Your task to perform on an android device: Google the capital of Colombia Image 0: 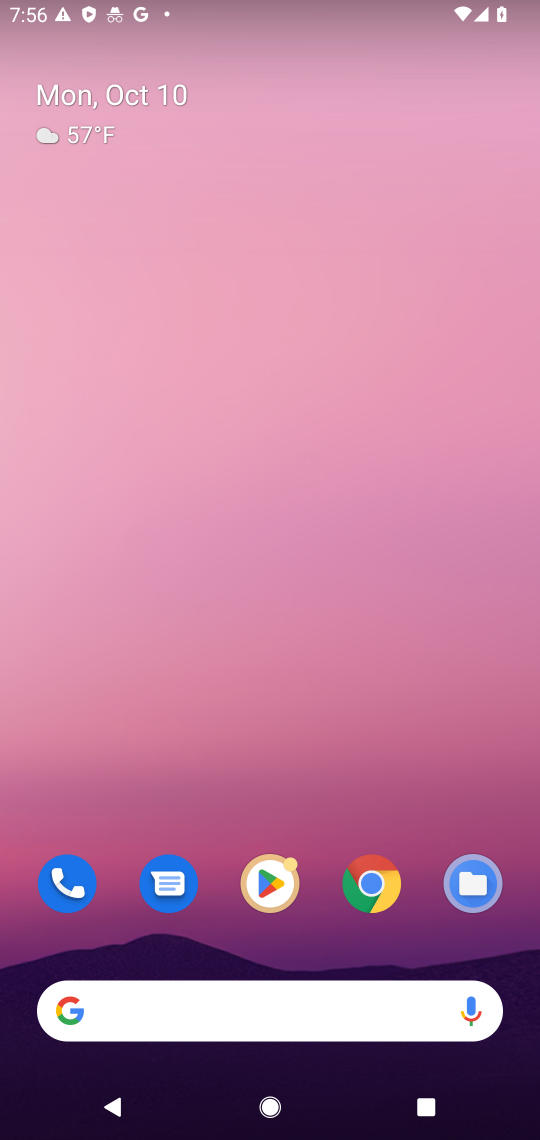
Step 0: drag from (278, 975) to (362, 10)
Your task to perform on an android device: Google the capital of Colombia Image 1: 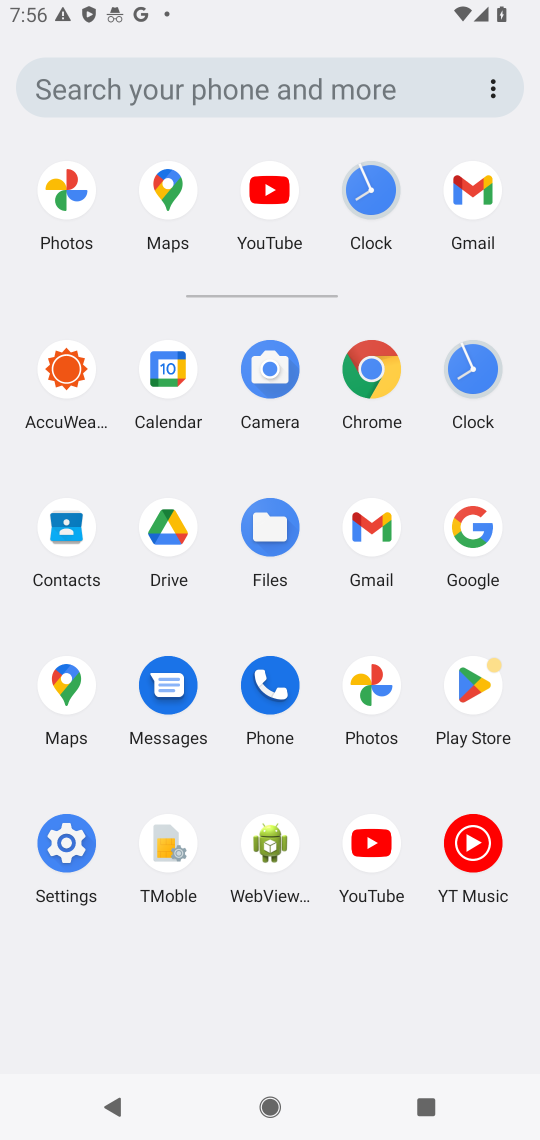
Step 1: click (471, 554)
Your task to perform on an android device: Google the capital of Colombia Image 2: 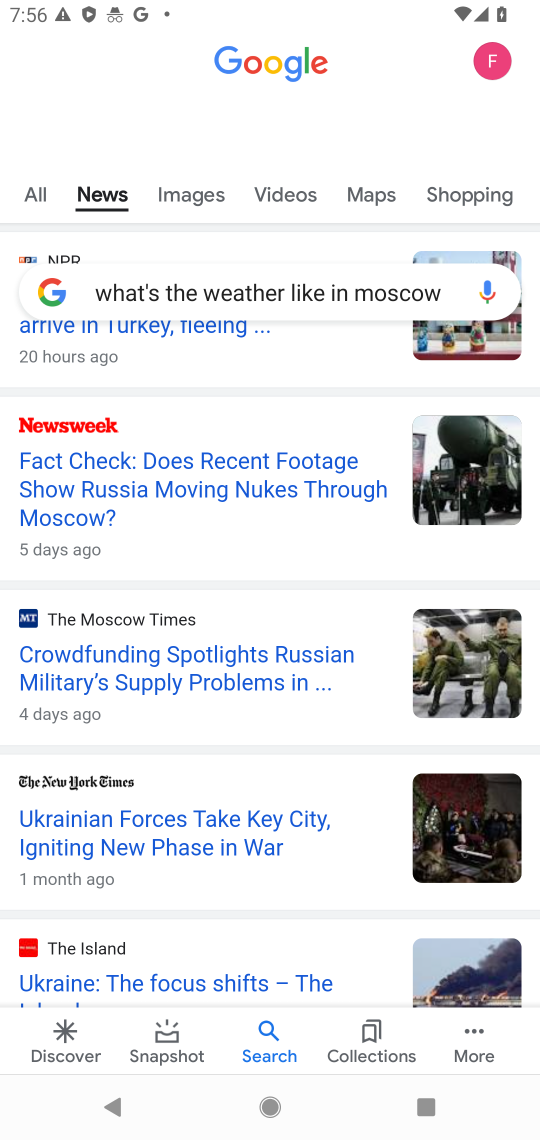
Step 2: click (333, 291)
Your task to perform on an android device: Google the capital of Colombia Image 3: 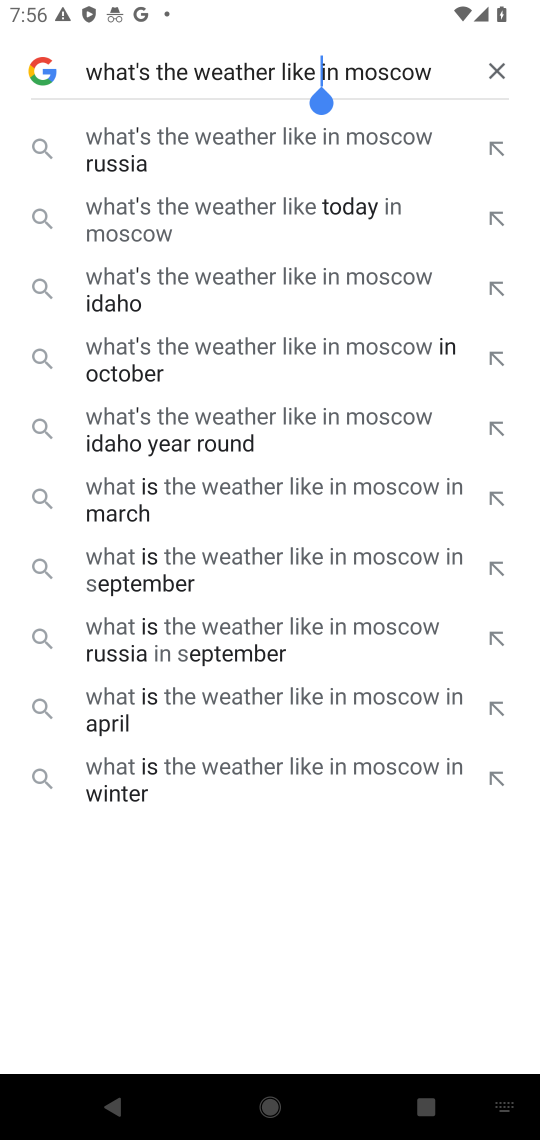
Step 3: click (495, 74)
Your task to perform on an android device: Google the capital of Colombia Image 4: 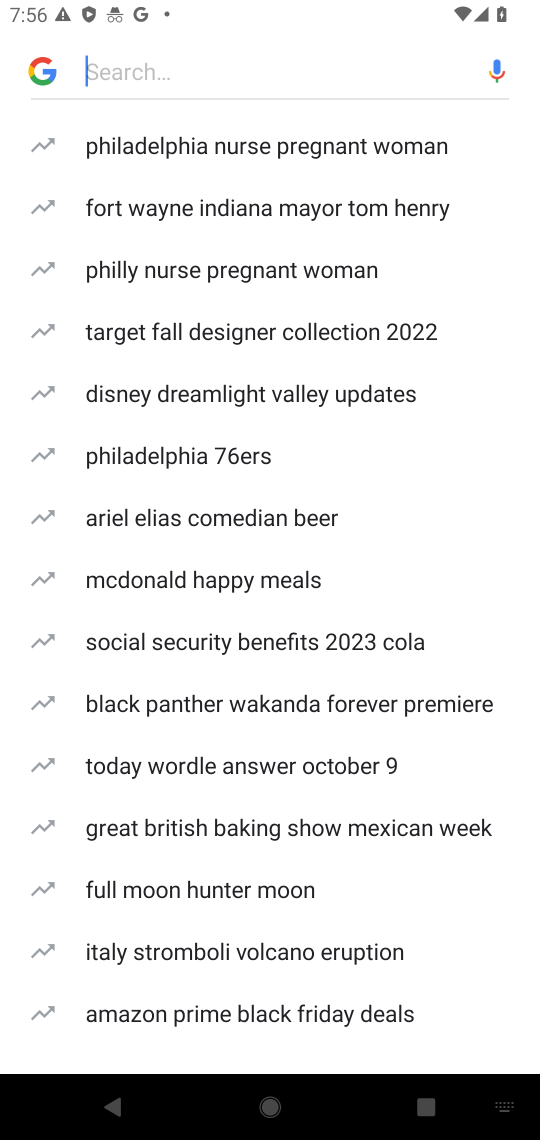
Step 4: type "capital of Colombia"
Your task to perform on an android device: Google the capital of Colombia Image 5: 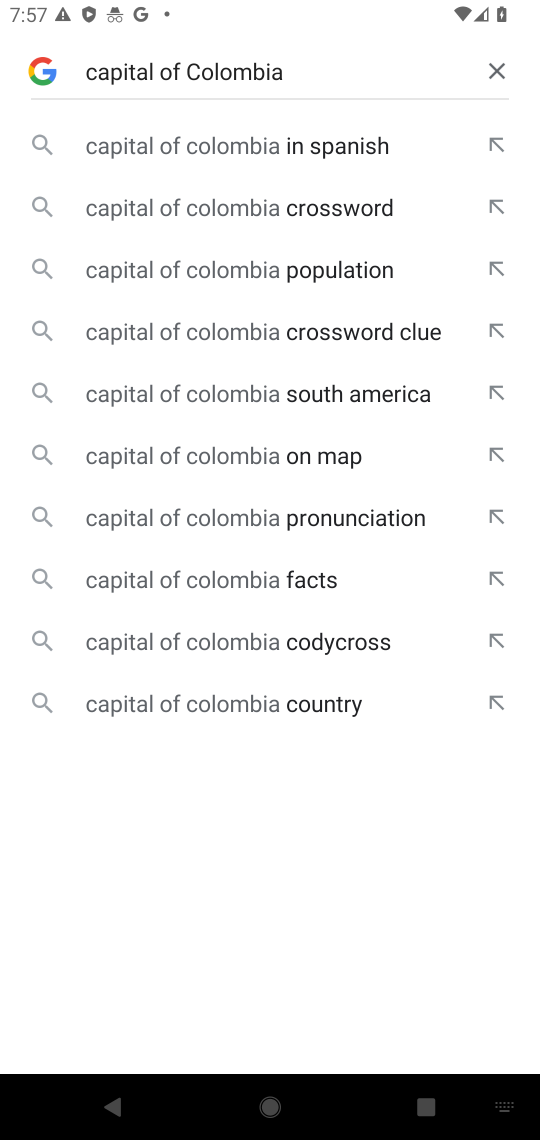
Step 5: click (278, 714)
Your task to perform on an android device: Google the capital of Colombia Image 6: 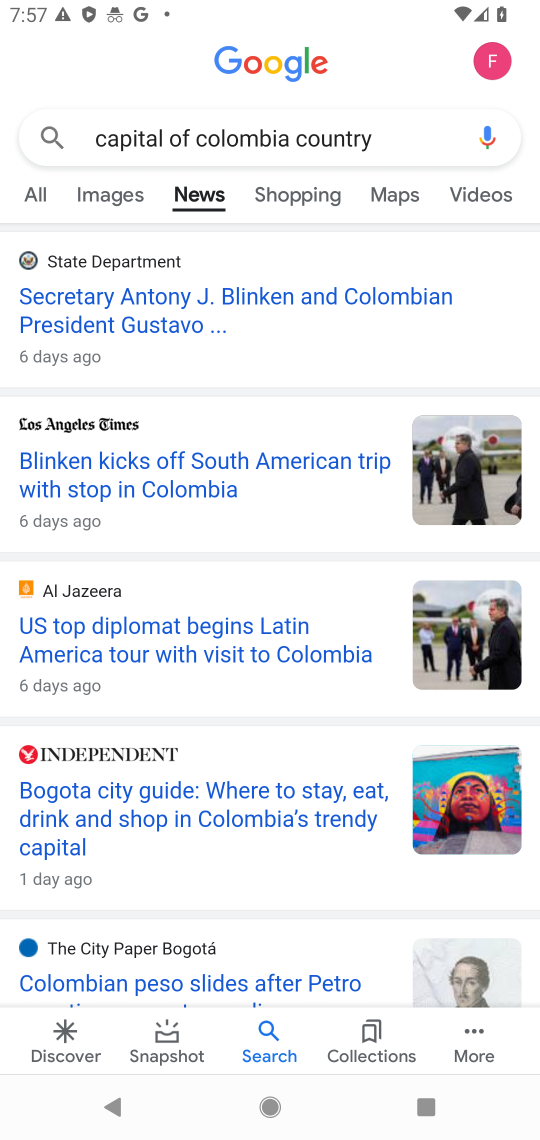
Step 6: click (38, 192)
Your task to perform on an android device: Google the capital of Colombia Image 7: 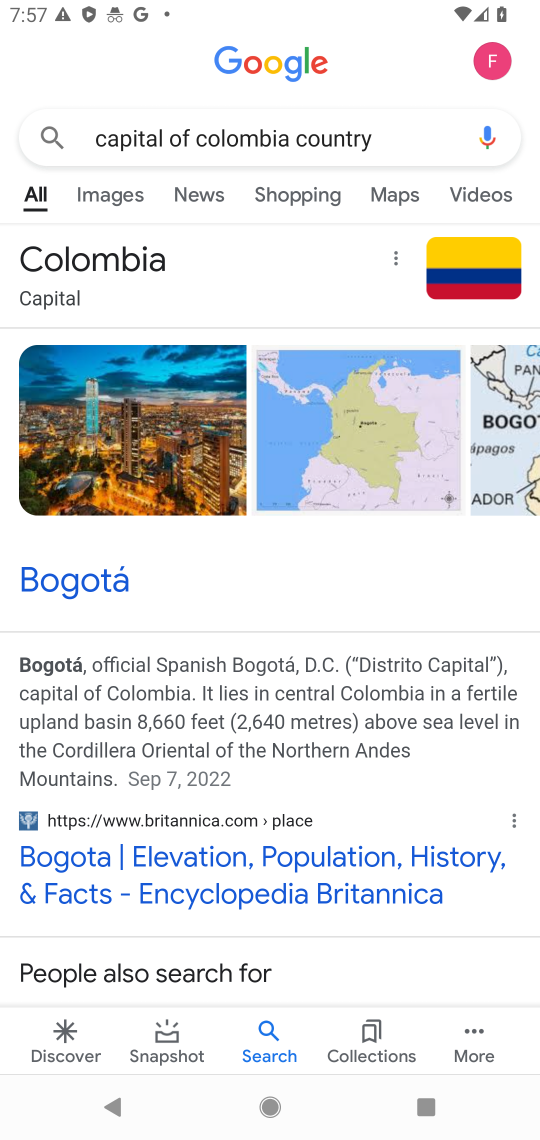
Step 7: task complete